Your task to perform on an android device: Turn off the flashlight Image 0: 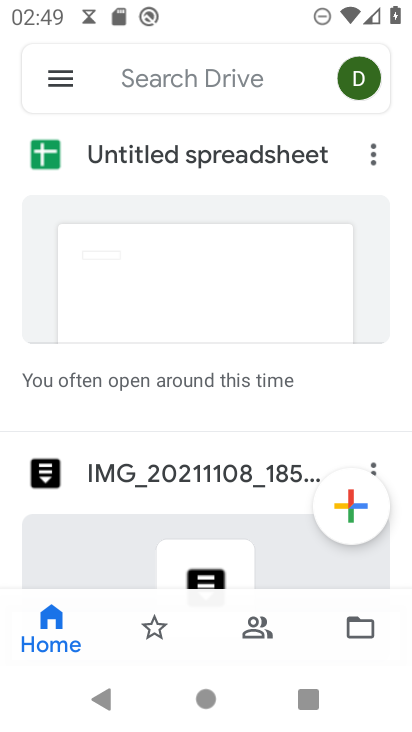
Step 0: press home button
Your task to perform on an android device: Turn off the flashlight Image 1: 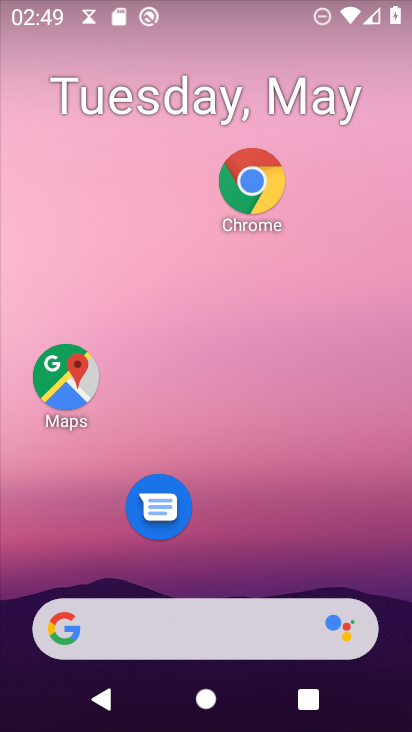
Step 1: drag from (269, 537) to (303, 104)
Your task to perform on an android device: Turn off the flashlight Image 2: 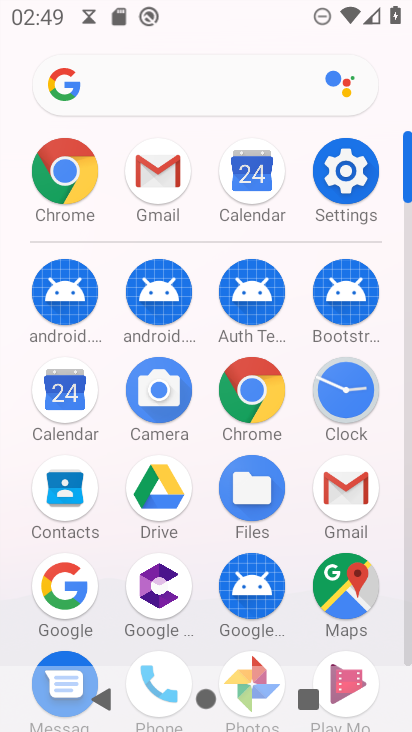
Step 2: click (341, 163)
Your task to perform on an android device: Turn off the flashlight Image 3: 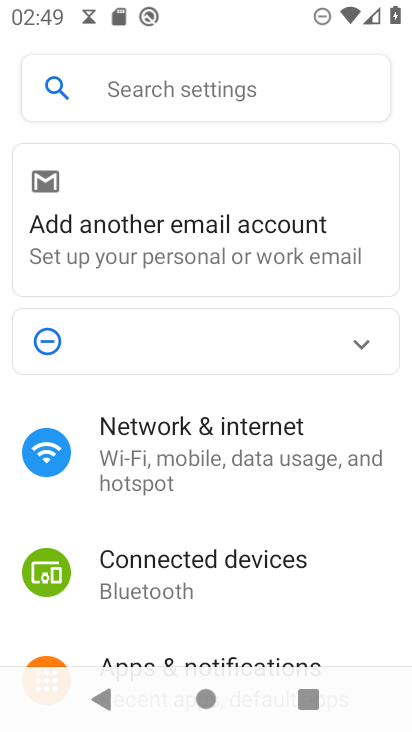
Step 3: task complete